Your task to perform on an android device: find which apps use the phone's location Image 0: 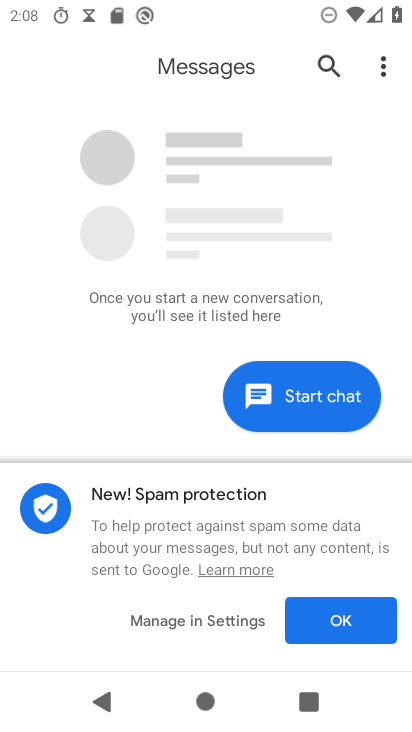
Step 0: press home button
Your task to perform on an android device: find which apps use the phone's location Image 1: 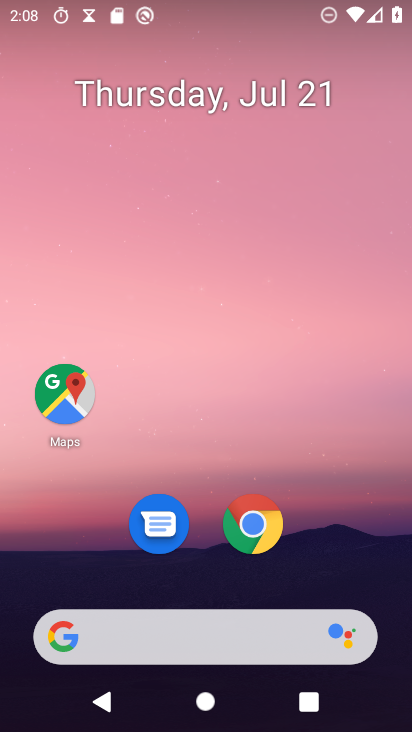
Step 1: drag from (225, 625) to (258, 140)
Your task to perform on an android device: find which apps use the phone's location Image 2: 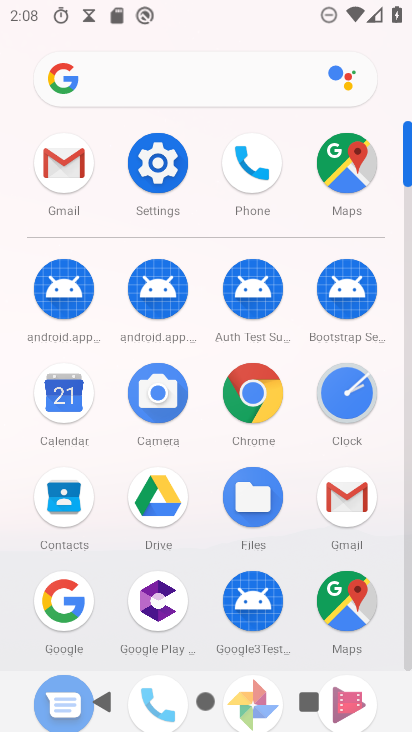
Step 2: click (160, 166)
Your task to perform on an android device: find which apps use the phone's location Image 3: 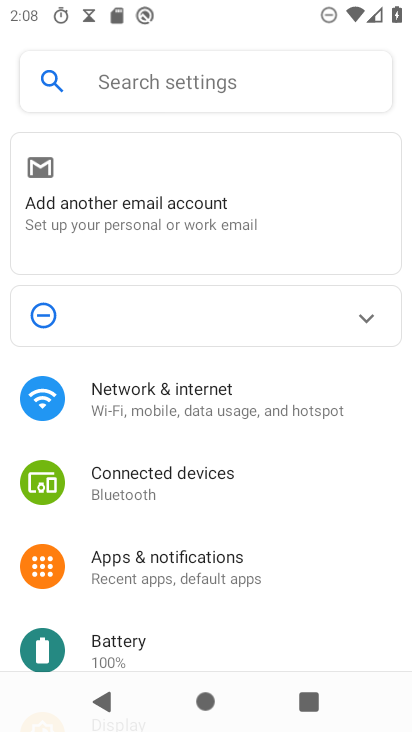
Step 3: drag from (287, 605) to (307, 83)
Your task to perform on an android device: find which apps use the phone's location Image 4: 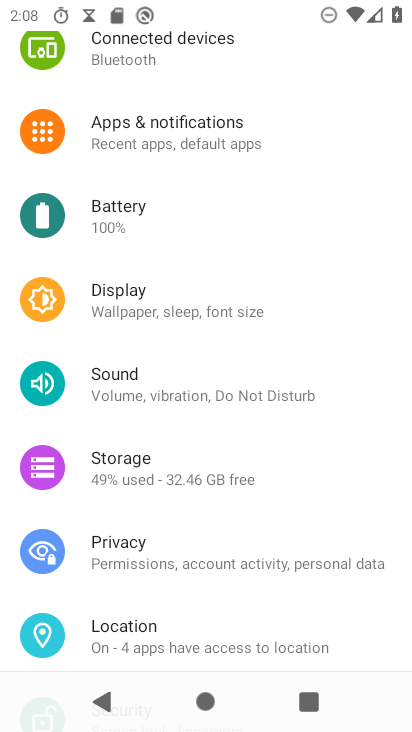
Step 4: click (139, 629)
Your task to perform on an android device: find which apps use the phone's location Image 5: 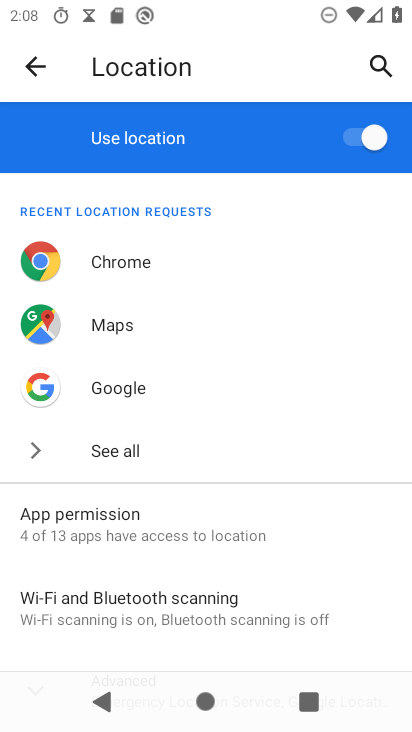
Step 5: drag from (211, 539) to (240, 253)
Your task to perform on an android device: find which apps use the phone's location Image 6: 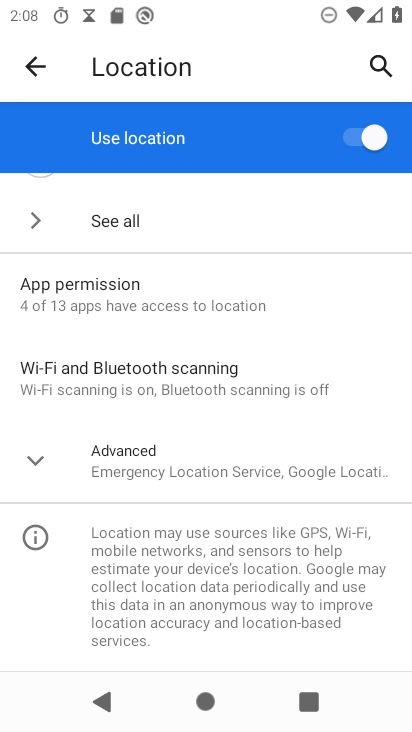
Step 6: click (117, 302)
Your task to perform on an android device: find which apps use the phone's location Image 7: 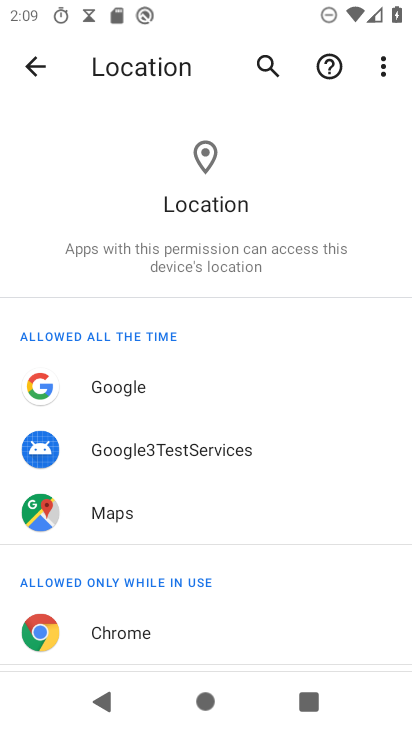
Step 7: drag from (251, 576) to (285, 155)
Your task to perform on an android device: find which apps use the phone's location Image 8: 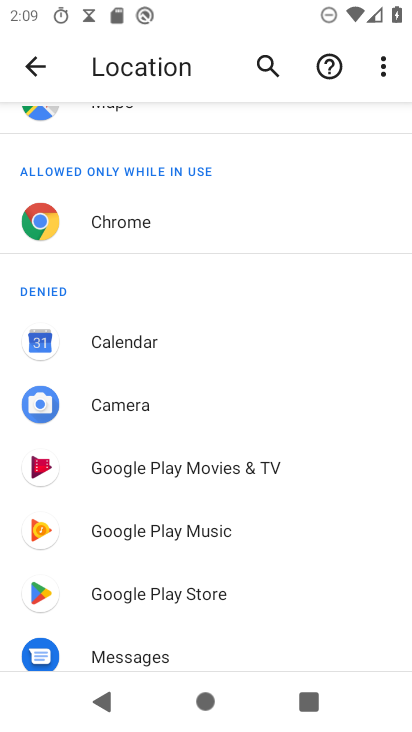
Step 8: drag from (265, 523) to (272, 185)
Your task to perform on an android device: find which apps use the phone's location Image 9: 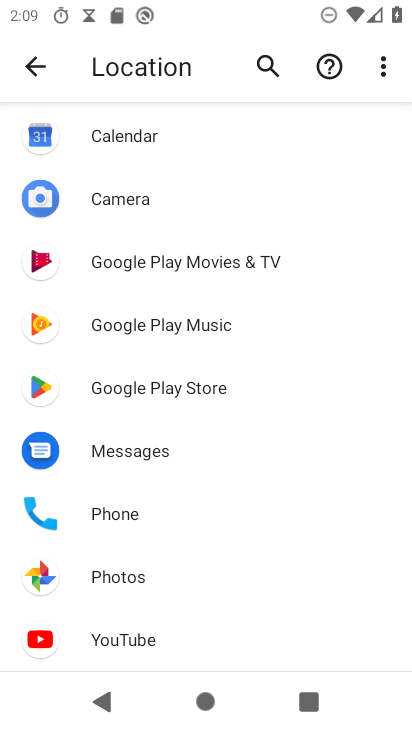
Step 9: click (112, 509)
Your task to perform on an android device: find which apps use the phone's location Image 10: 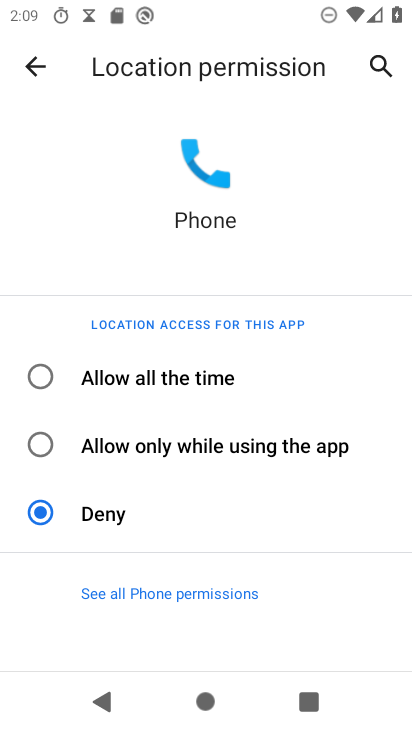
Step 10: task complete